Your task to perform on an android device: see tabs open on other devices in the chrome app Image 0: 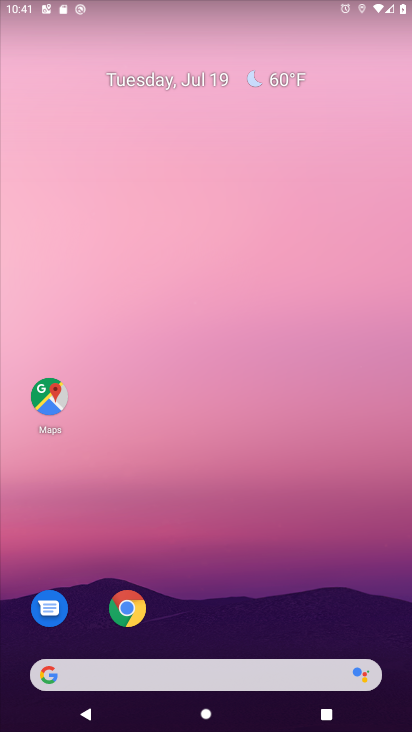
Step 0: click (125, 602)
Your task to perform on an android device: see tabs open on other devices in the chrome app Image 1: 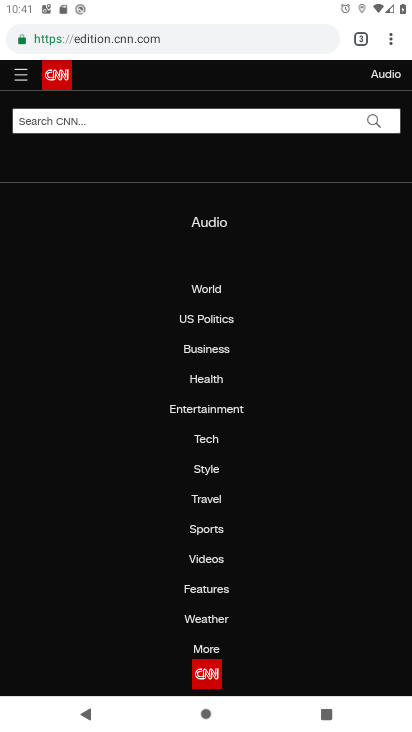
Step 1: click (362, 43)
Your task to perform on an android device: see tabs open on other devices in the chrome app Image 2: 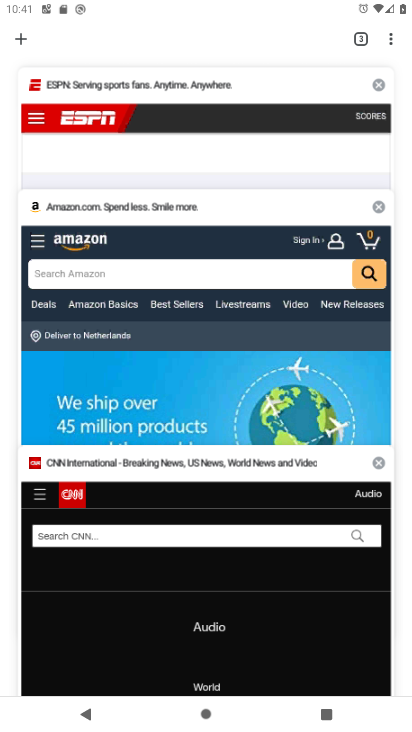
Step 2: task complete